Your task to perform on an android device: delete the emails in spam in the gmail app Image 0: 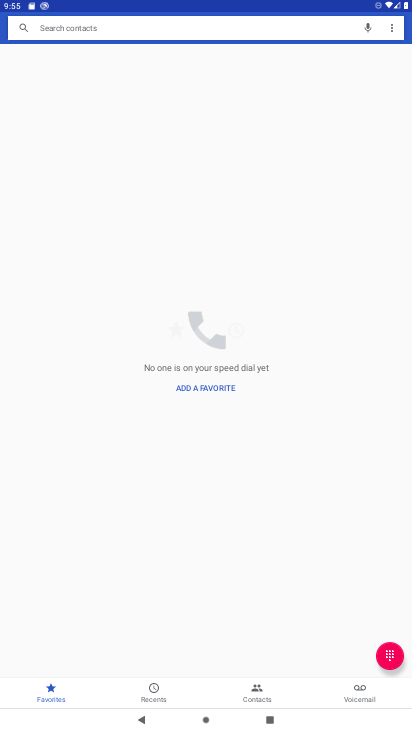
Step 0: press home button
Your task to perform on an android device: delete the emails in spam in the gmail app Image 1: 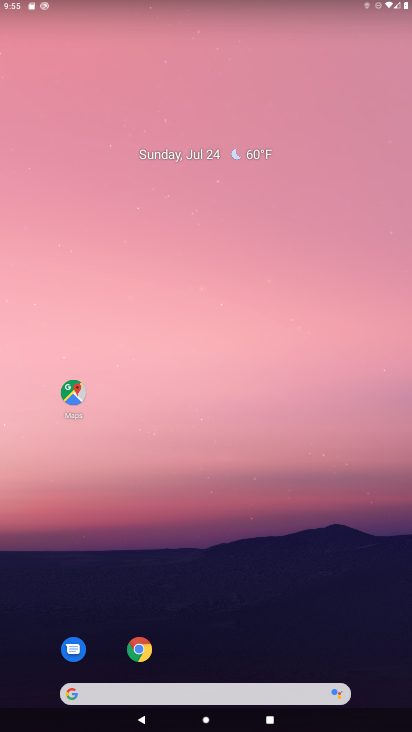
Step 1: drag from (319, 611) to (277, 176)
Your task to perform on an android device: delete the emails in spam in the gmail app Image 2: 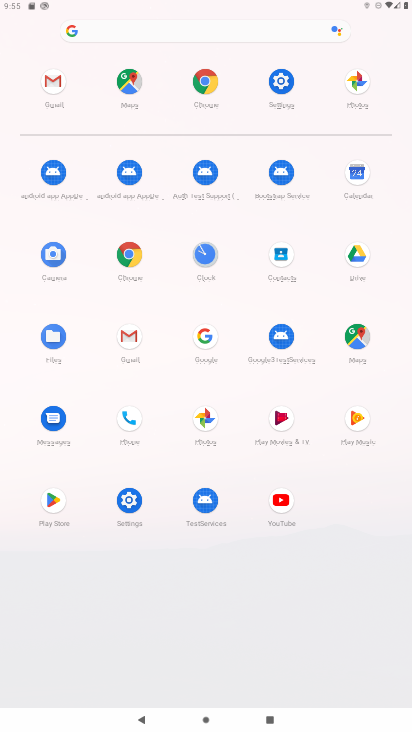
Step 2: click (51, 79)
Your task to perform on an android device: delete the emails in spam in the gmail app Image 3: 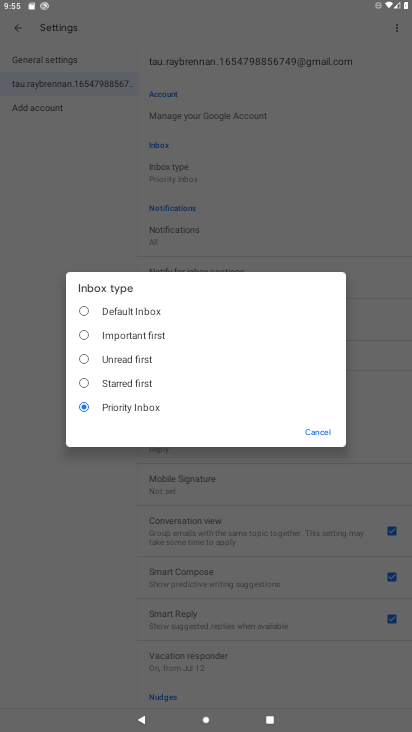
Step 3: click (318, 427)
Your task to perform on an android device: delete the emails in spam in the gmail app Image 4: 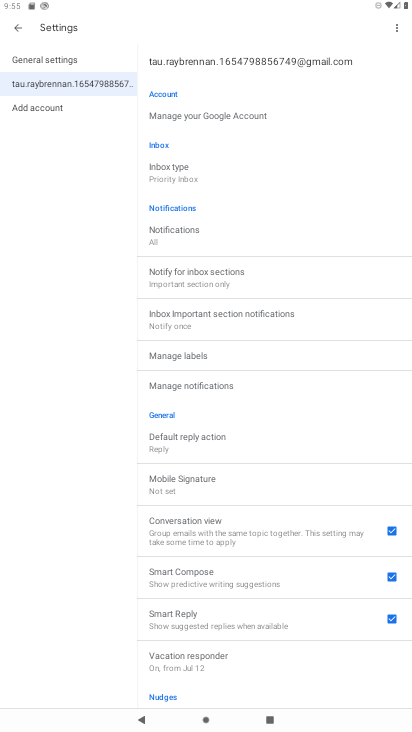
Step 4: click (19, 25)
Your task to perform on an android device: delete the emails in spam in the gmail app Image 5: 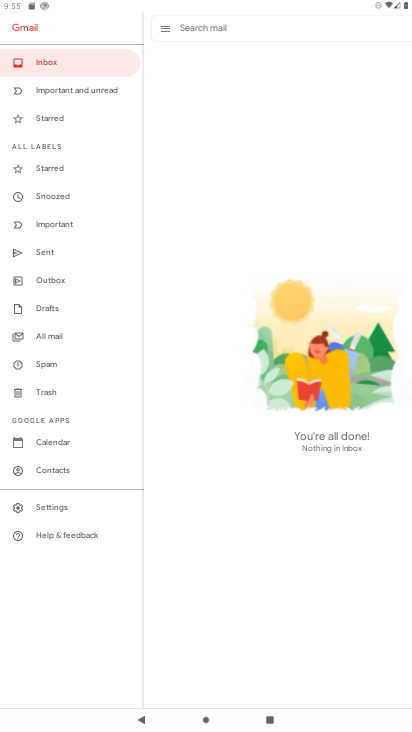
Step 5: click (50, 366)
Your task to perform on an android device: delete the emails in spam in the gmail app Image 6: 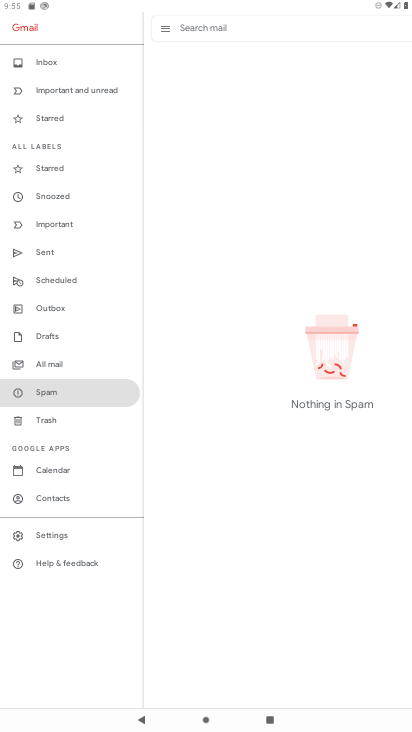
Step 6: task complete